Your task to perform on an android device: Open calendar and show me the fourth week of next month Image 0: 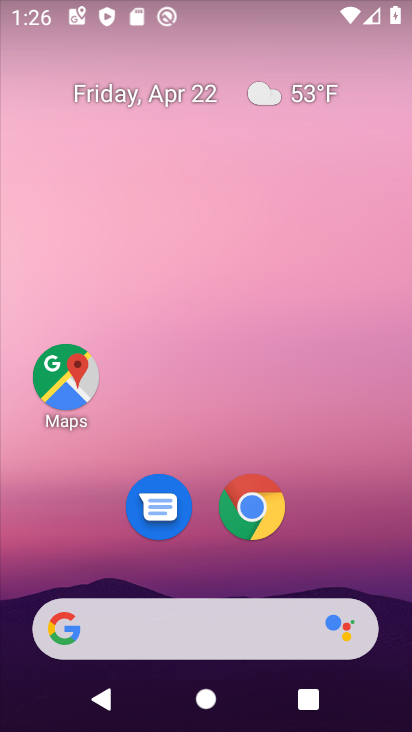
Step 0: drag from (314, 550) to (266, 195)
Your task to perform on an android device: Open calendar and show me the fourth week of next month Image 1: 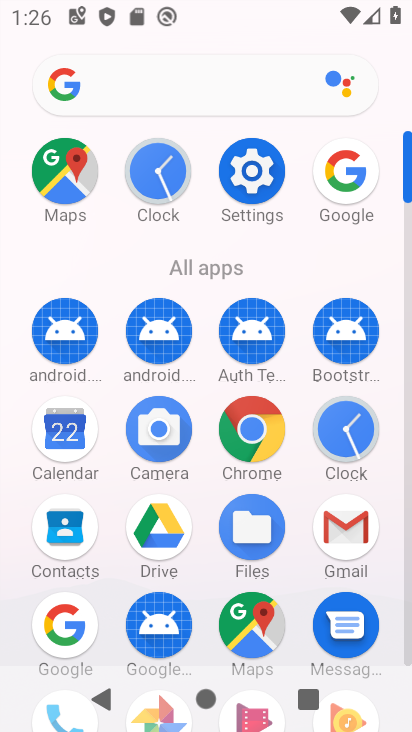
Step 1: drag from (212, 552) to (222, 300)
Your task to perform on an android device: Open calendar and show me the fourth week of next month Image 2: 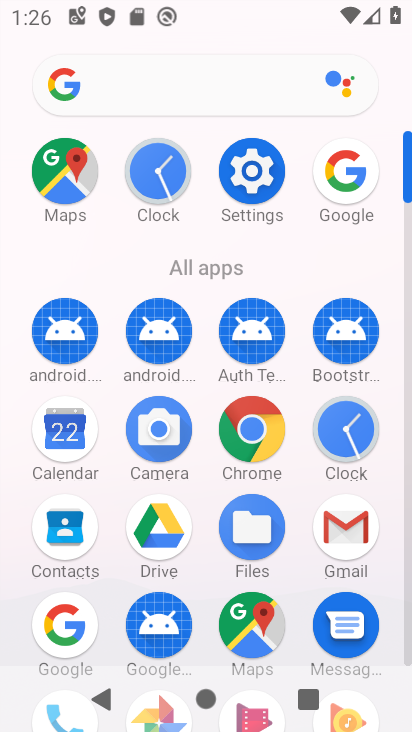
Step 2: drag from (195, 535) to (204, 263)
Your task to perform on an android device: Open calendar and show me the fourth week of next month Image 3: 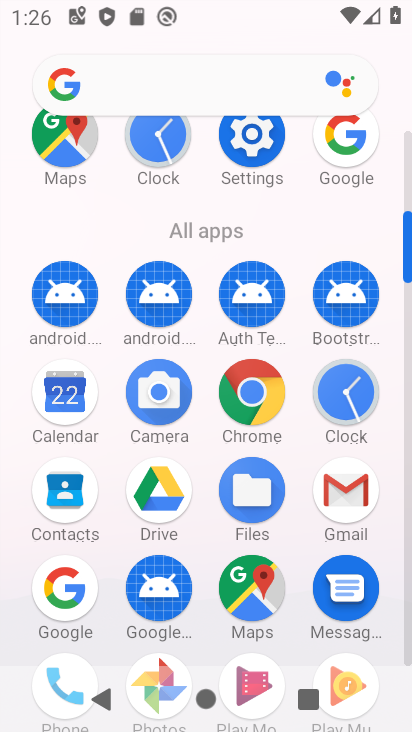
Step 3: drag from (319, 434) to (295, 626)
Your task to perform on an android device: Open calendar and show me the fourth week of next month Image 4: 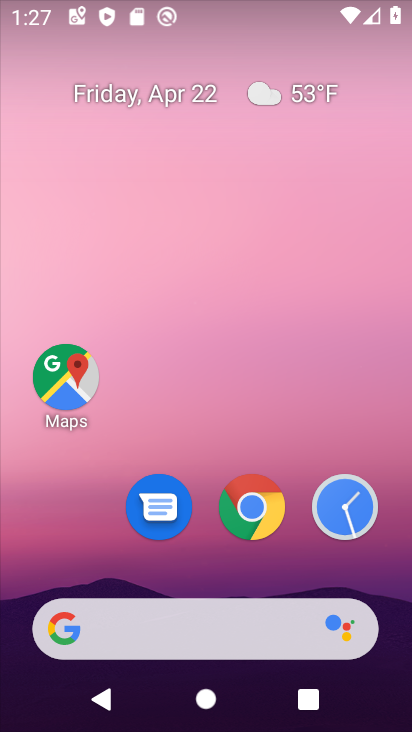
Step 4: drag from (272, 564) to (287, 75)
Your task to perform on an android device: Open calendar and show me the fourth week of next month Image 5: 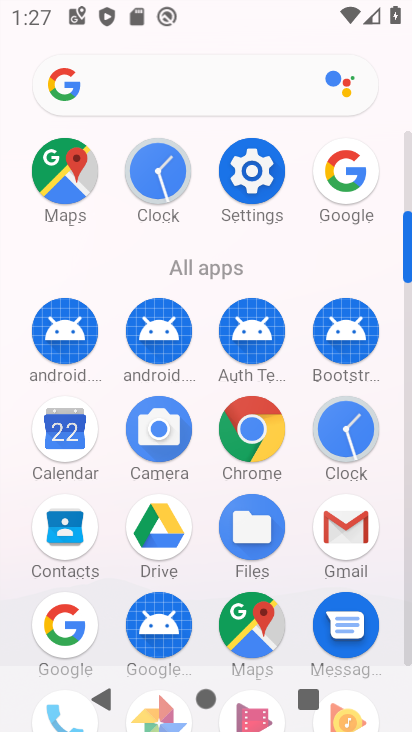
Step 5: click (56, 454)
Your task to perform on an android device: Open calendar and show me the fourth week of next month Image 6: 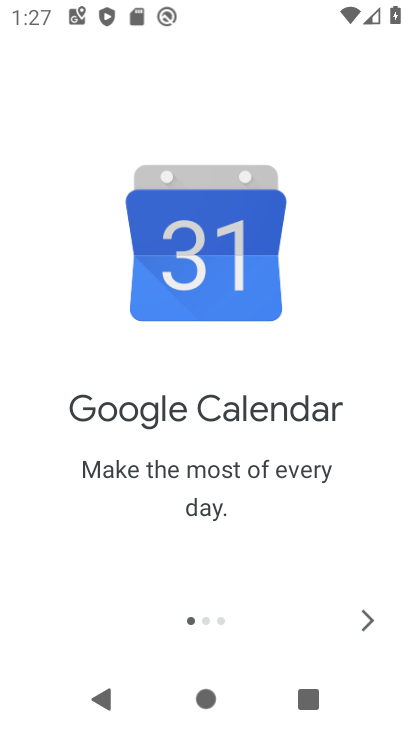
Step 6: click (361, 621)
Your task to perform on an android device: Open calendar and show me the fourth week of next month Image 7: 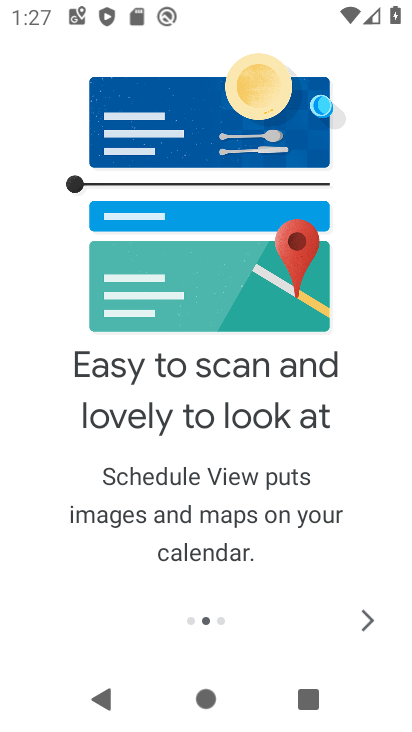
Step 7: click (364, 625)
Your task to perform on an android device: Open calendar and show me the fourth week of next month Image 8: 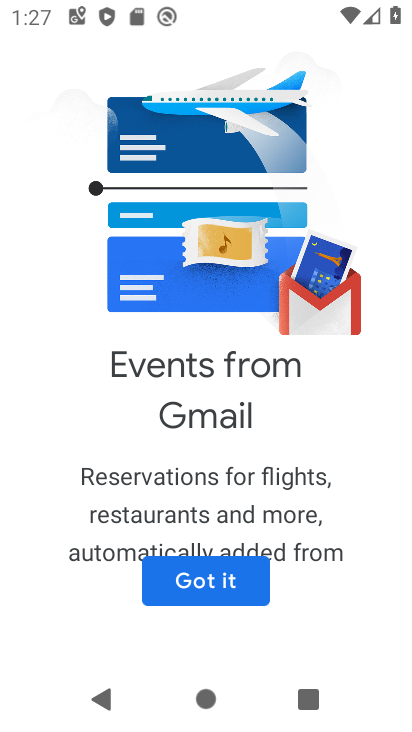
Step 8: click (231, 588)
Your task to perform on an android device: Open calendar and show me the fourth week of next month Image 9: 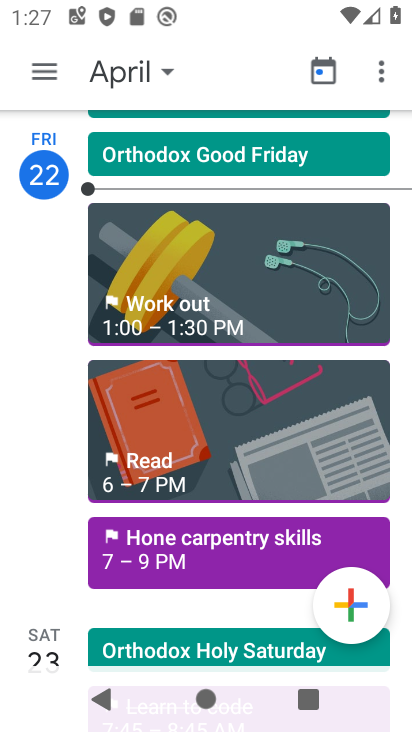
Step 9: click (53, 74)
Your task to perform on an android device: Open calendar and show me the fourth week of next month Image 10: 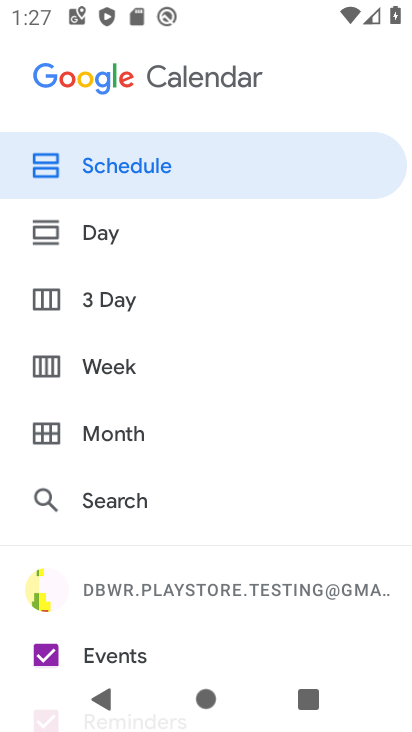
Step 10: click (109, 371)
Your task to perform on an android device: Open calendar and show me the fourth week of next month Image 11: 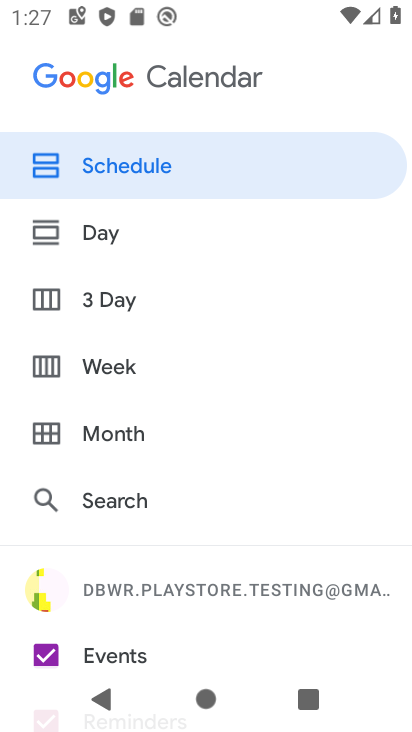
Step 11: click (117, 368)
Your task to perform on an android device: Open calendar and show me the fourth week of next month Image 12: 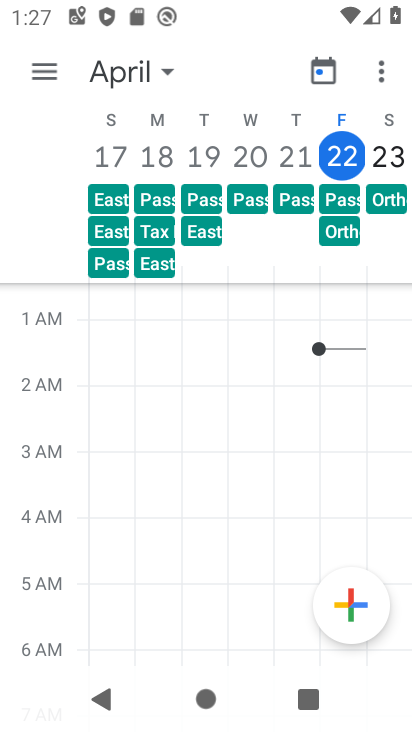
Step 12: click (121, 76)
Your task to perform on an android device: Open calendar and show me the fourth week of next month Image 13: 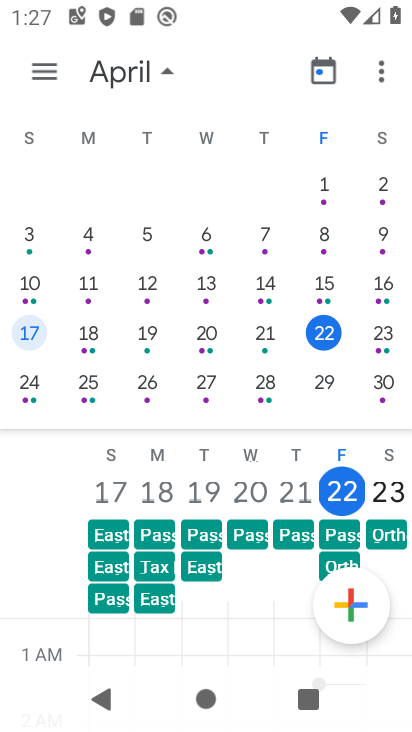
Step 13: drag from (323, 264) to (46, 265)
Your task to perform on an android device: Open calendar and show me the fourth week of next month Image 14: 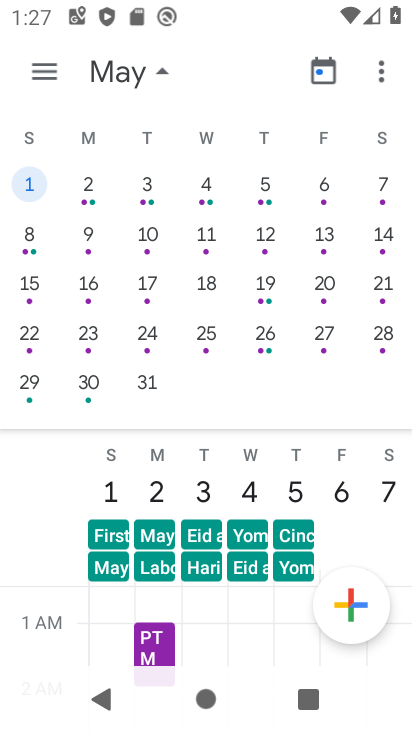
Step 14: click (32, 335)
Your task to perform on an android device: Open calendar and show me the fourth week of next month Image 15: 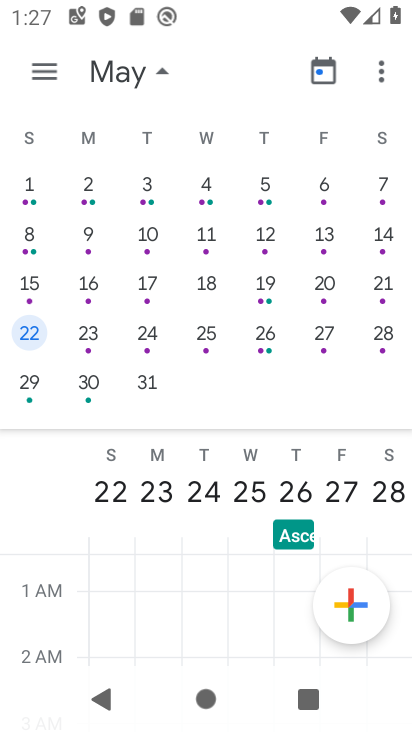
Step 15: task complete